Your task to perform on an android device: When is my next meeting? Image 0: 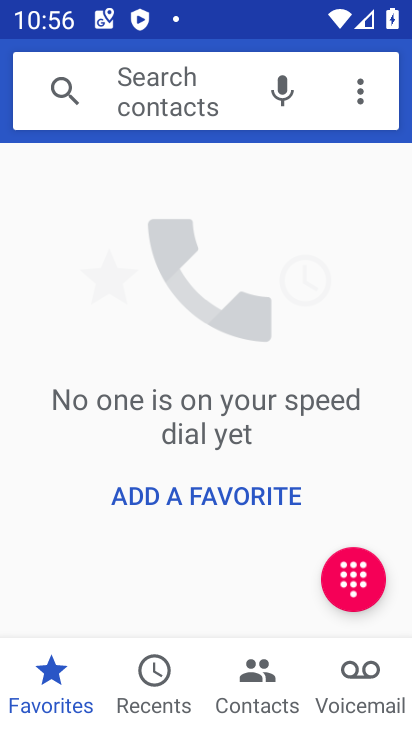
Step 0: press home button
Your task to perform on an android device: When is my next meeting? Image 1: 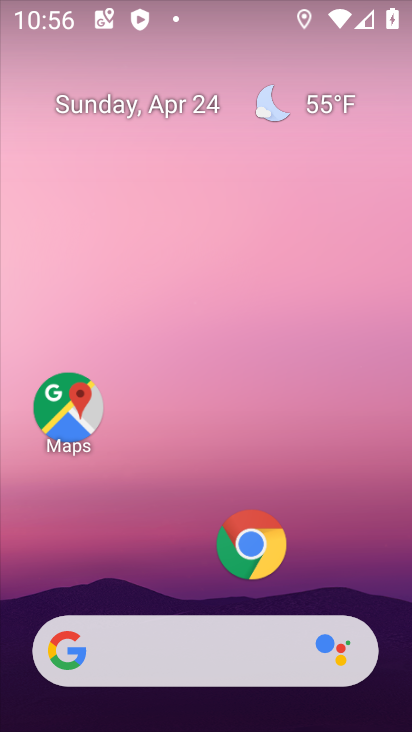
Step 1: drag from (192, 588) to (209, 157)
Your task to perform on an android device: When is my next meeting? Image 2: 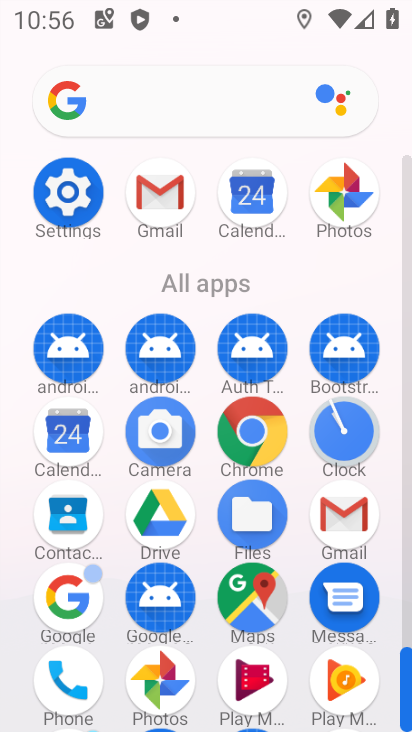
Step 2: click (232, 195)
Your task to perform on an android device: When is my next meeting? Image 3: 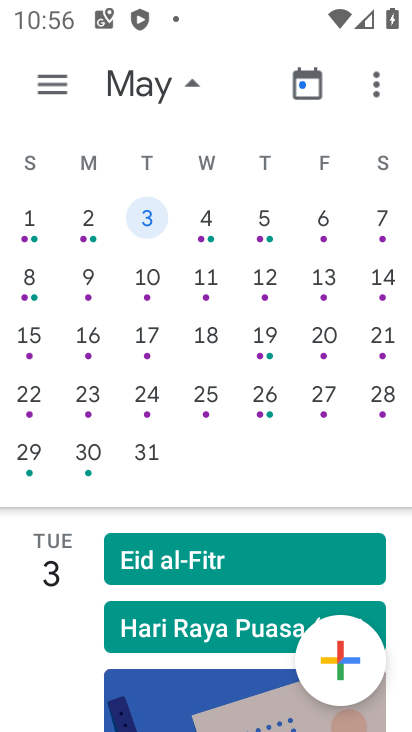
Step 3: drag from (95, 268) to (382, 263)
Your task to perform on an android device: When is my next meeting? Image 4: 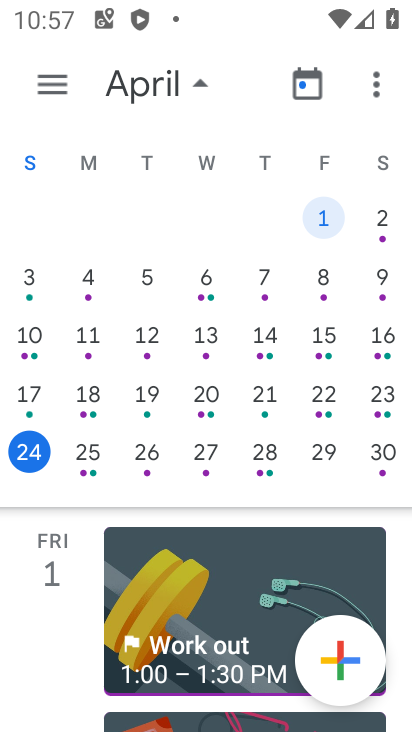
Step 4: click (92, 444)
Your task to perform on an android device: When is my next meeting? Image 5: 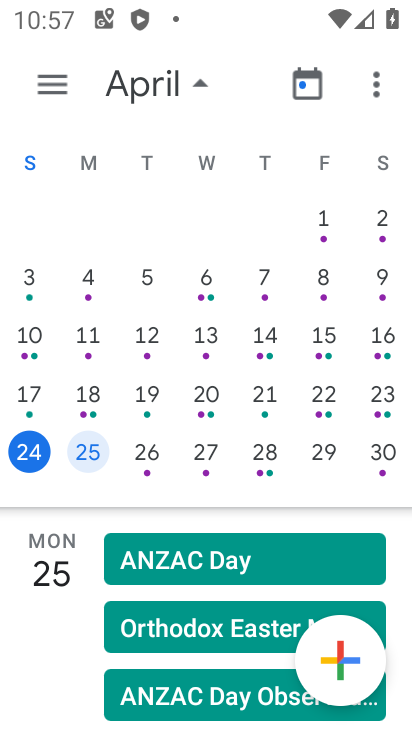
Step 5: drag from (217, 640) to (196, 465)
Your task to perform on an android device: When is my next meeting? Image 6: 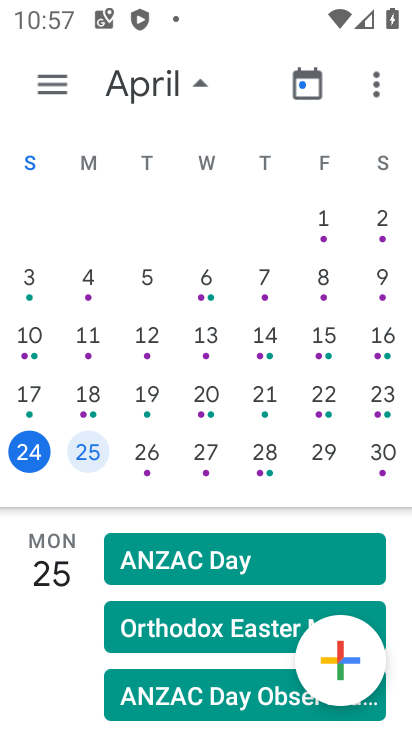
Step 6: click (159, 286)
Your task to perform on an android device: When is my next meeting? Image 7: 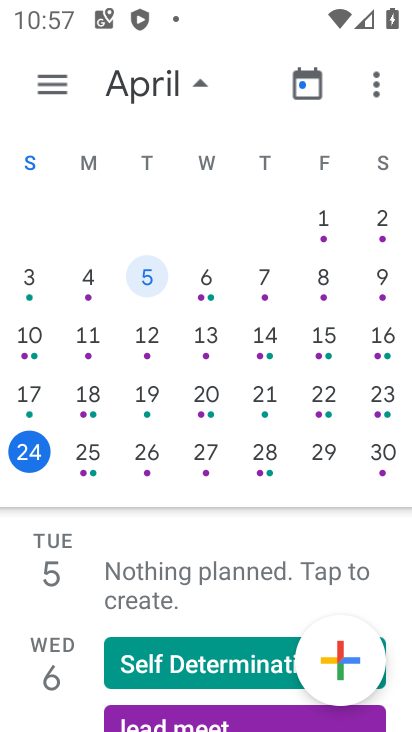
Step 7: click (166, 455)
Your task to perform on an android device: When is my next meeting? Image 8: 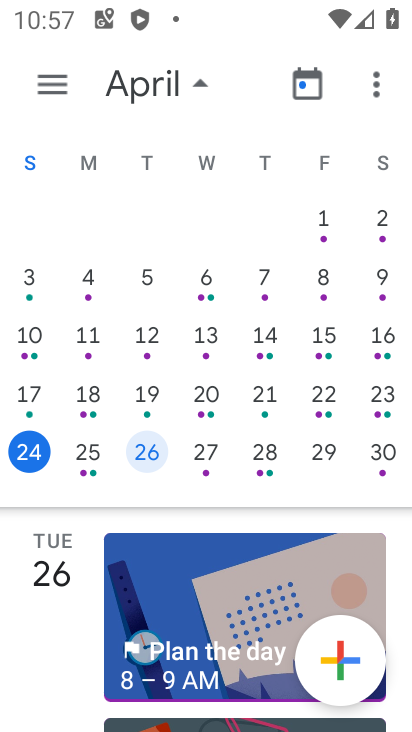
Step 8: drag from (211, 654) to (203, 507)
Your task to perform on an android device: When is my next meeting? Image 9: 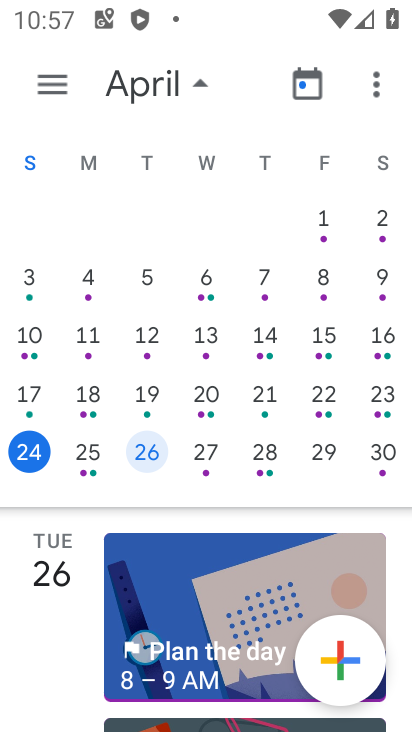
Step 9: click (203, 444)
Your task to perform on an android device: When is my next meeting? Image 10: 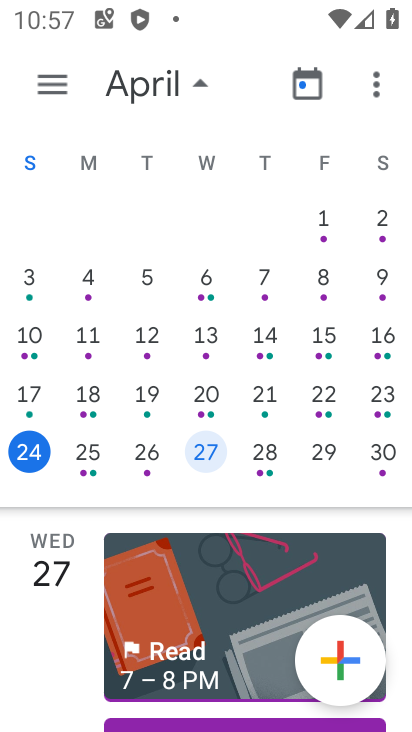
Step 10: drag from (206, 635) to (214, 351)
Your task to perform on an android device: When is my next meeting? Image 11: 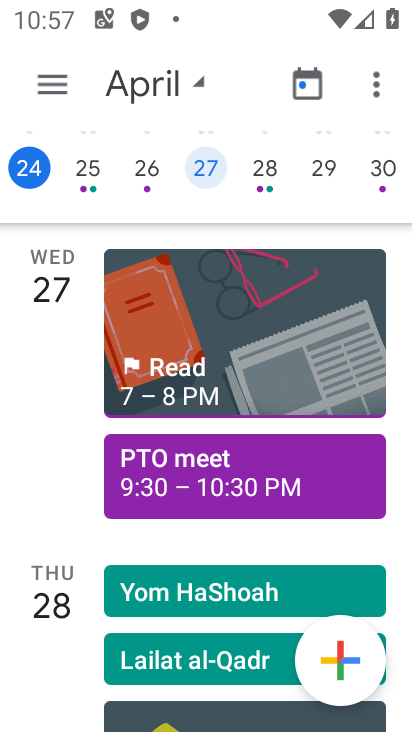
Step 11: click (206, 466)
Your task to perform on an android device: When is my next meeting? Image 12: 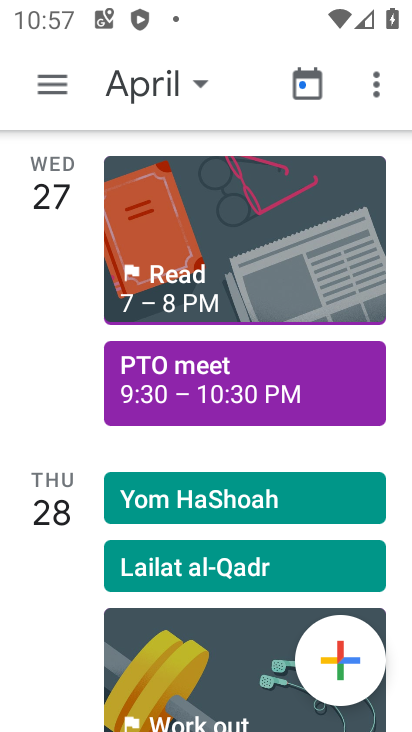
Step 12: click (149, 403)
Your task to perform on an android device: When is my next meeting? Image 13: 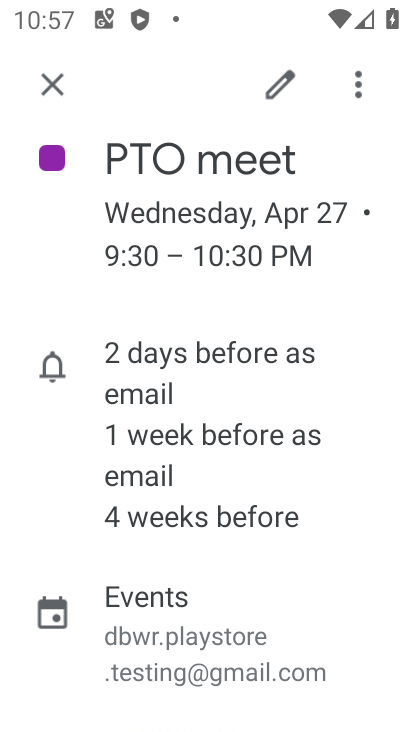
Step 13: task complete